Your task to perform on an android device: Turn off the flashlight Image 0: 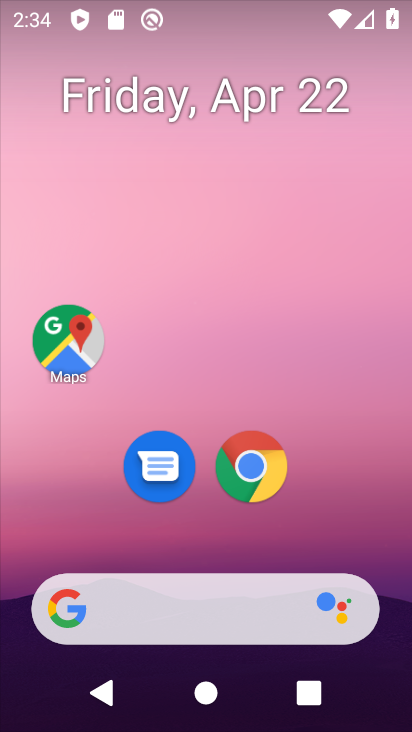
Step 0: drag from (173, 21) to (268, 642)
Your task to perform on an android device: Turn off the flashlight Image 1: 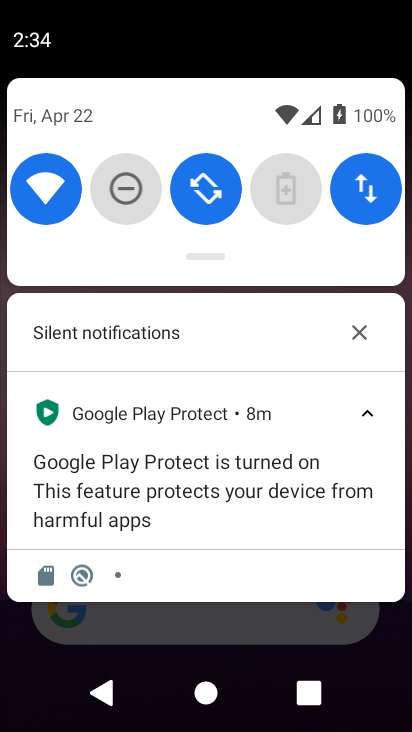
Step 1: task complete